Your task to perform on an android device: turn on javascript in the chrome app Image 0: 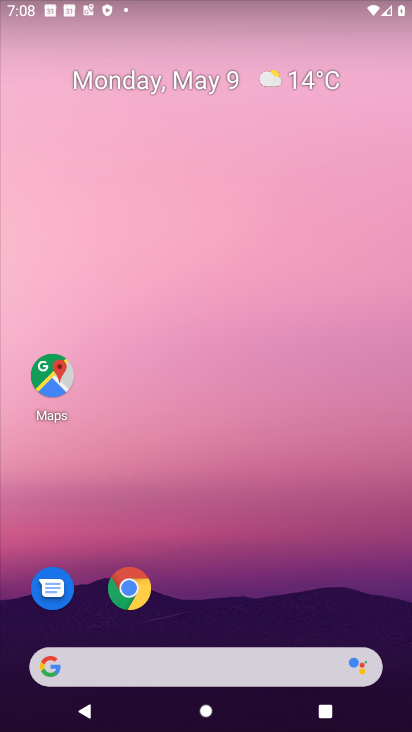
Step 0: drag from (347, 609) to (297, 60)
Your task to perform on an android device: turn on javascript in the chrome app Image 1: 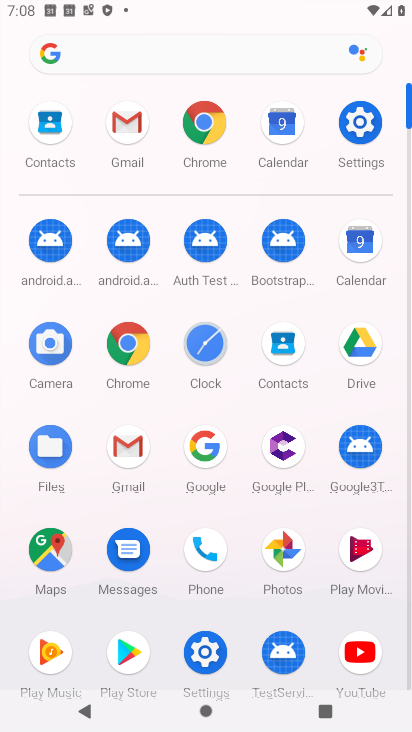
Step 1: click (127, 352)
Your task to perform on an android device: turn on javascript in the chrome app Image 2: 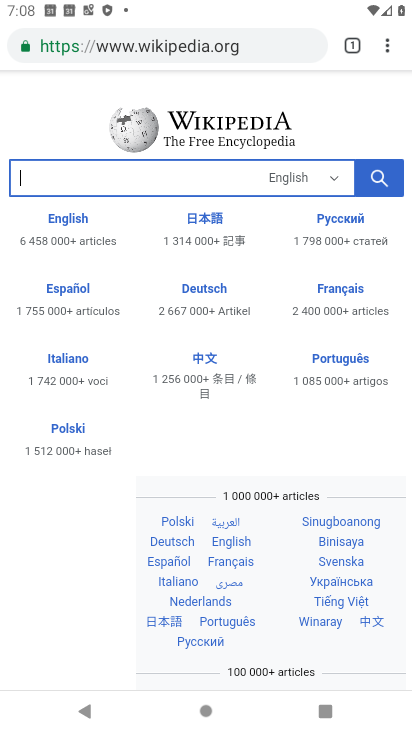
Step 2: press back button
Your task to perform on an android device: turn on javascript in the chrome app Image 3: 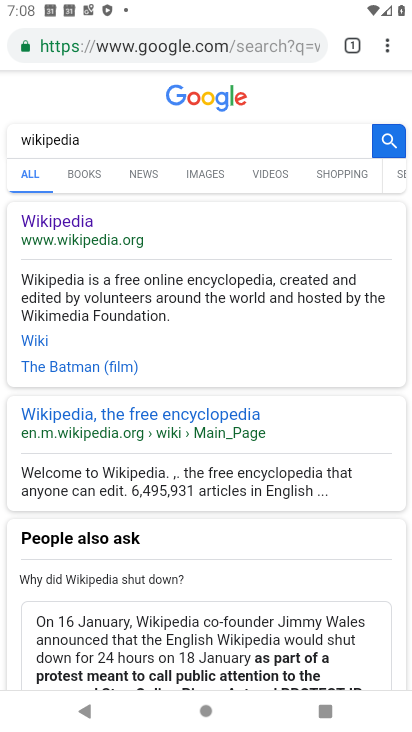
Step 3: press back button
Your task to perform on an android device: turn on javascript in the chrome app Image 4: 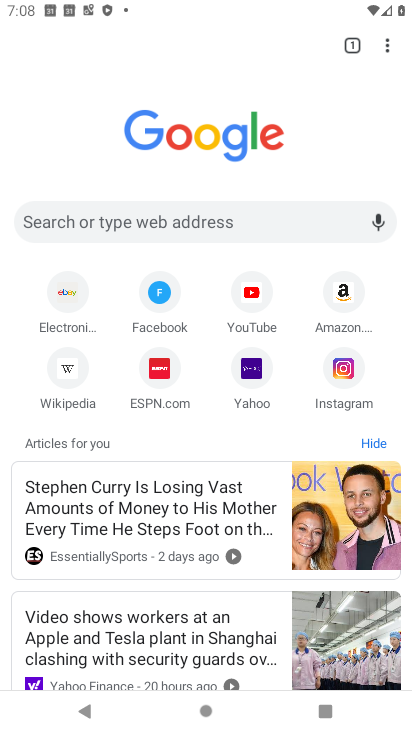
Step 4: click (383, 41)
Your task to perform on an android device: turn on javascript in the chrome app Image 5: 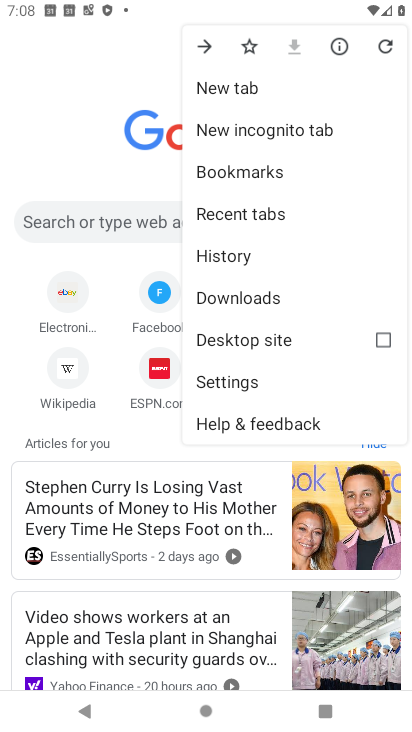
Step 5: click (244, 384)
Your task to perform on an android device: turn on javascript in the chrome app Image 6: 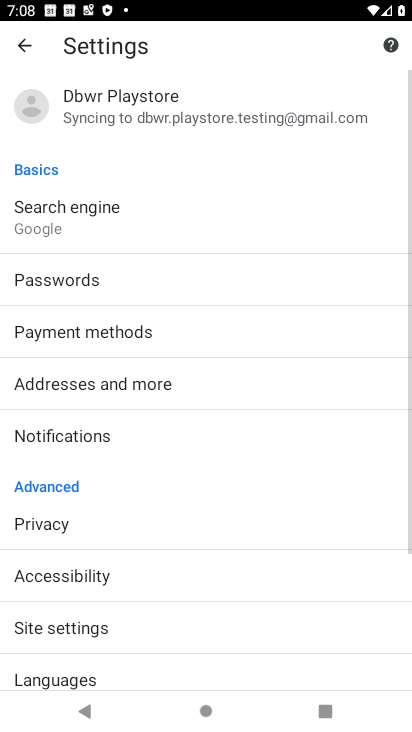
Step 6: click (130, 632)
Your task to perform on an android device: turn on javascript in the chrome app Image 7: 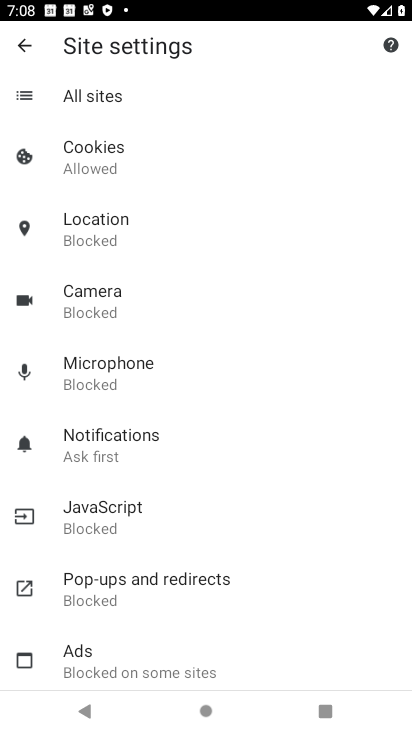
Step 7: click (152, 519)
Your task to perform on an android device: turn on javascript in the chrome app Image 8: 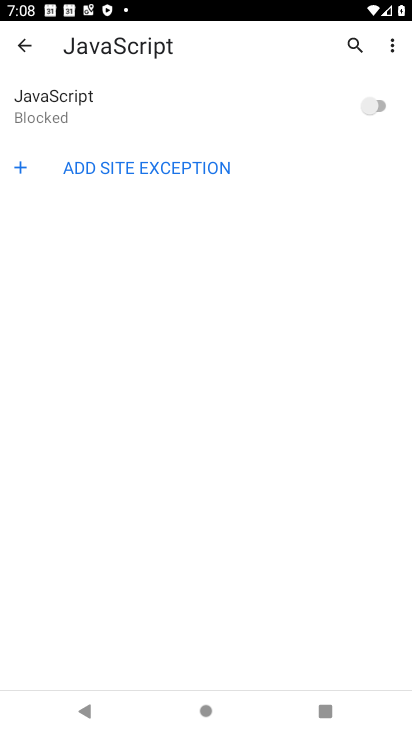
Step 8: click (366, 103)
Your task to perform on an android device: turn on javascript in the chrome app Image 9: 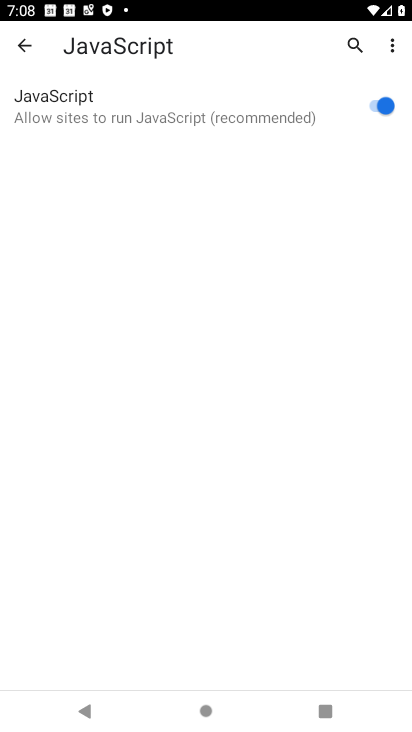
Step 9: task complete